Your task to perform on an android device: View the shopping cart on costco. Search for jbl flip 4 on costco, select the first entry, add it to the cart, then select checkout. Image 0: 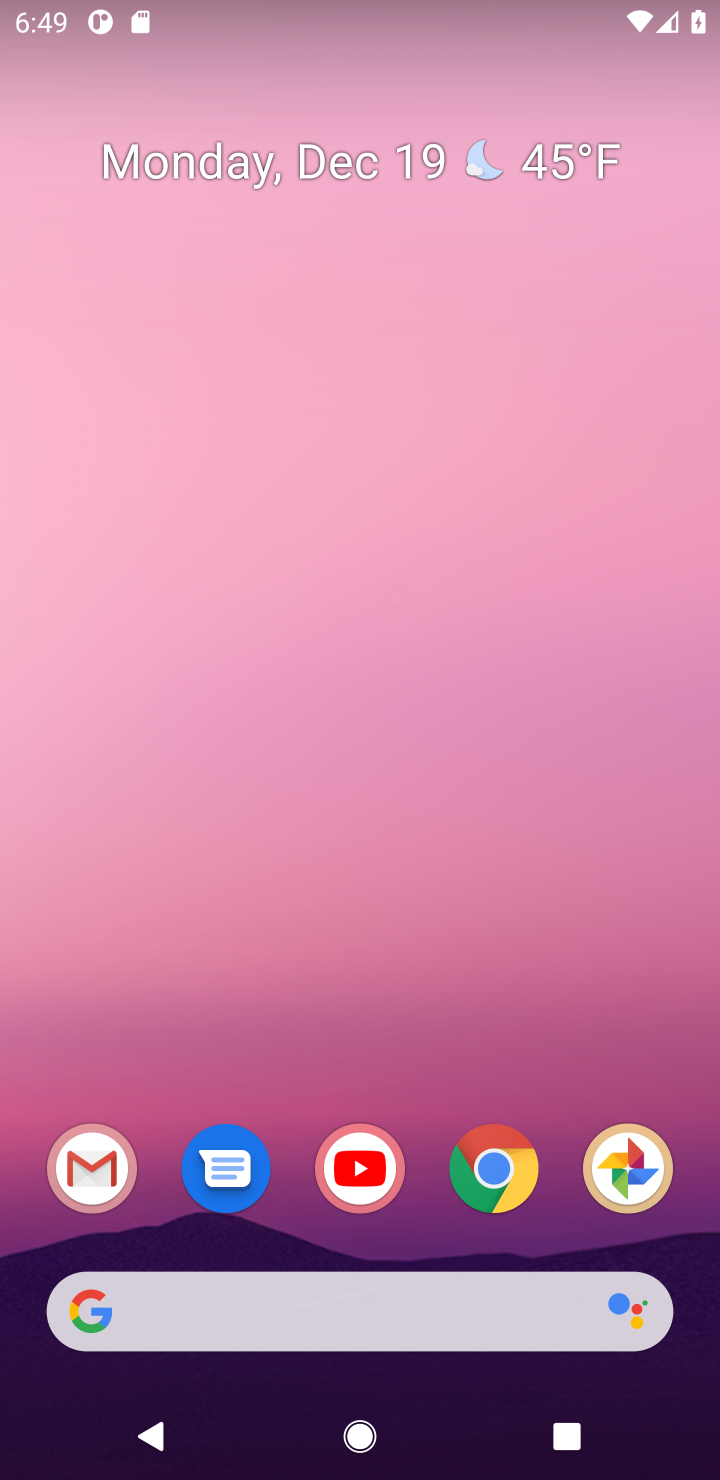
Step 0: click (495, 1175)
Your task to perform on an android device: View the shopping cart on costco. Search for jbl flip 4 on costco, select the first entry, add it to the cart, then select checkout. Image 1: 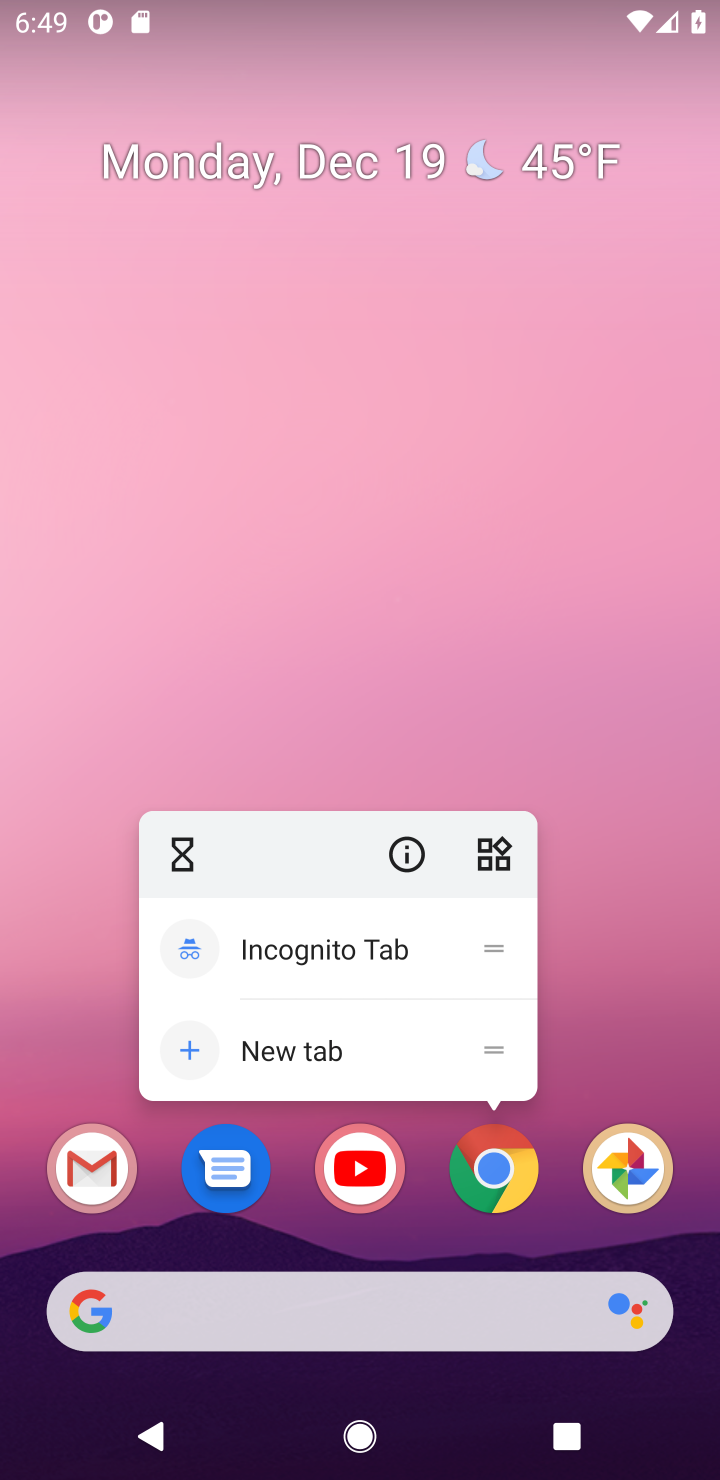
Step 1: click (495, 1175)
Your task to perform on an android device: View the shopping cart on costco. Search for jbl flip 4 on costco, select the first entry, add it to the cart, then select checkout. Image 2: 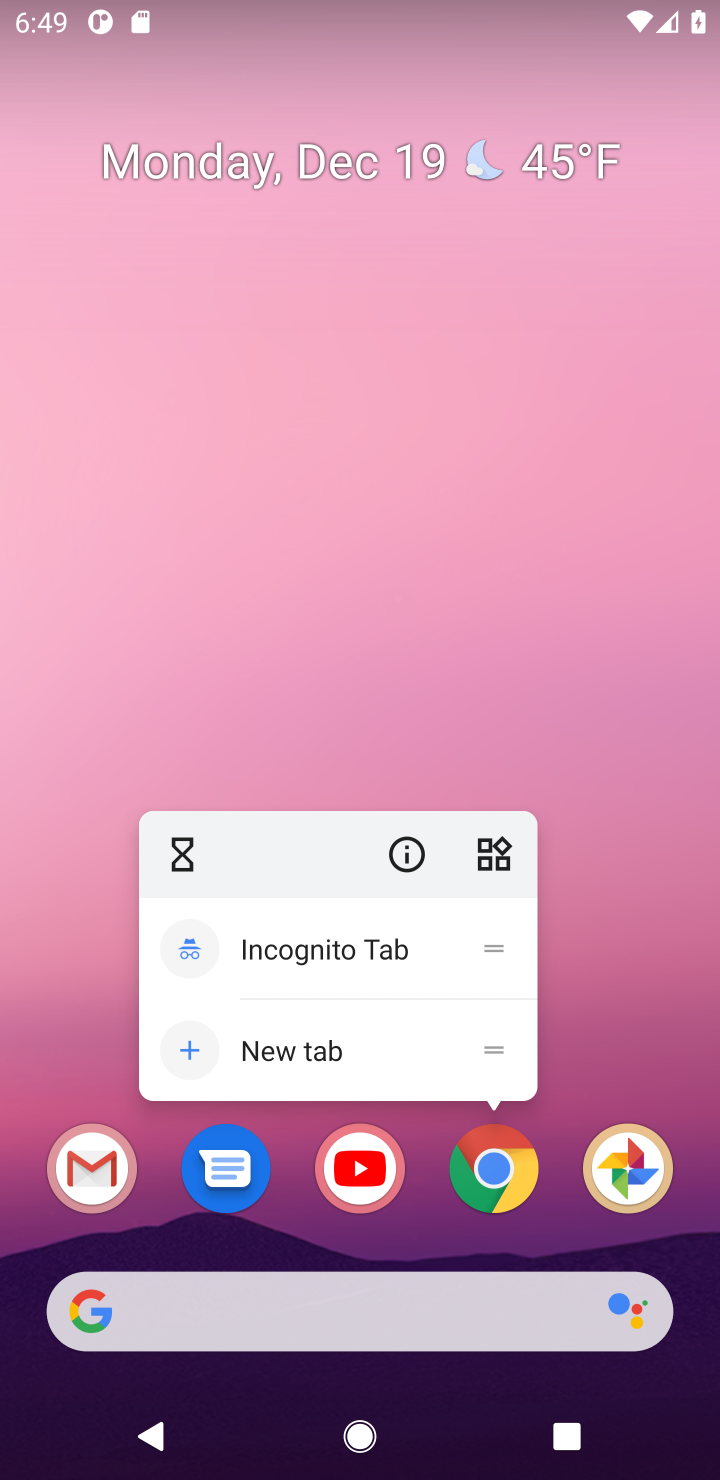
Step 2: click (495, 1175)
Your task to perform on an android device: View the shopping cart on costco. Search for jbl flip 4 on costco, select the first entry, add it to the cart, then select checkout. Image 3: 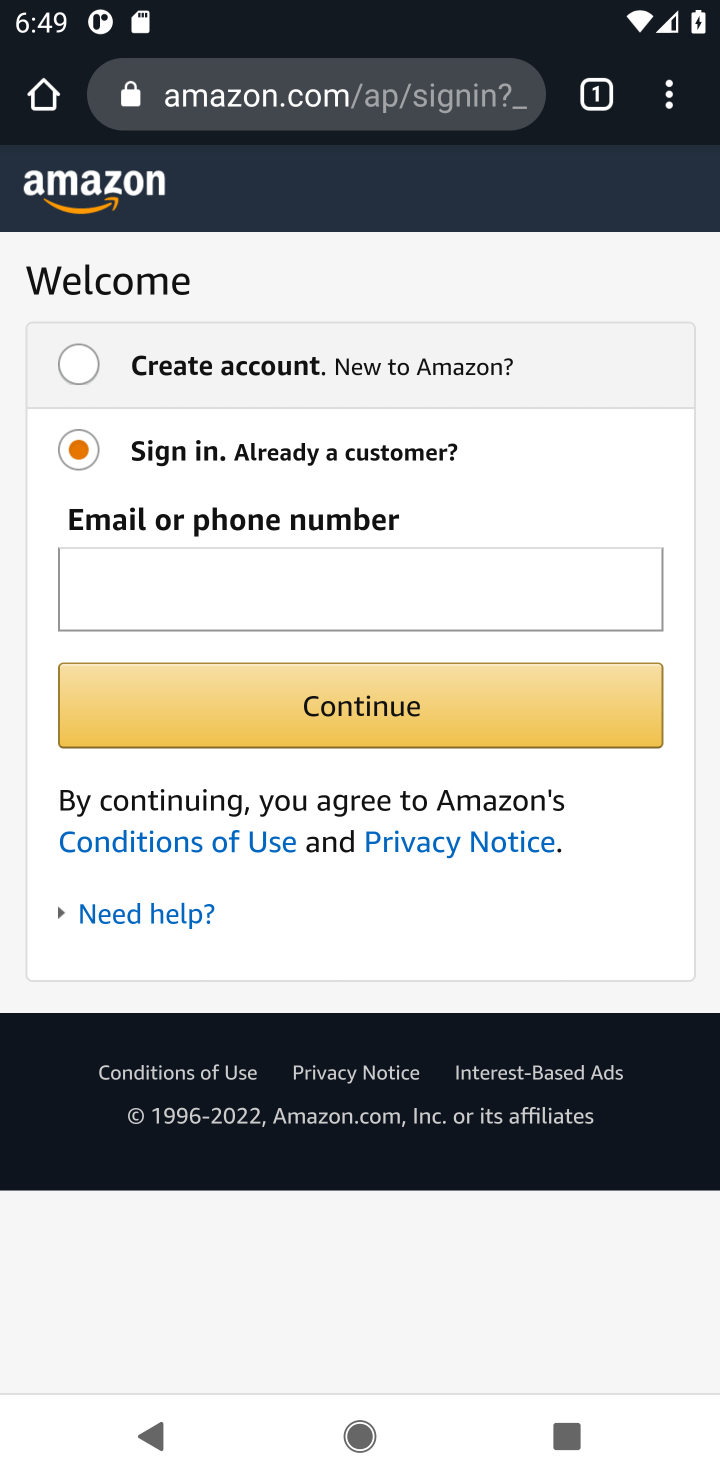
Step 3: click (279, 108)
Your task to perform on an android device: View the shopping cart on costco. Search for jbl flip 4 on costco, select the first entry, add it to the cart, then select checkout. Image 4: 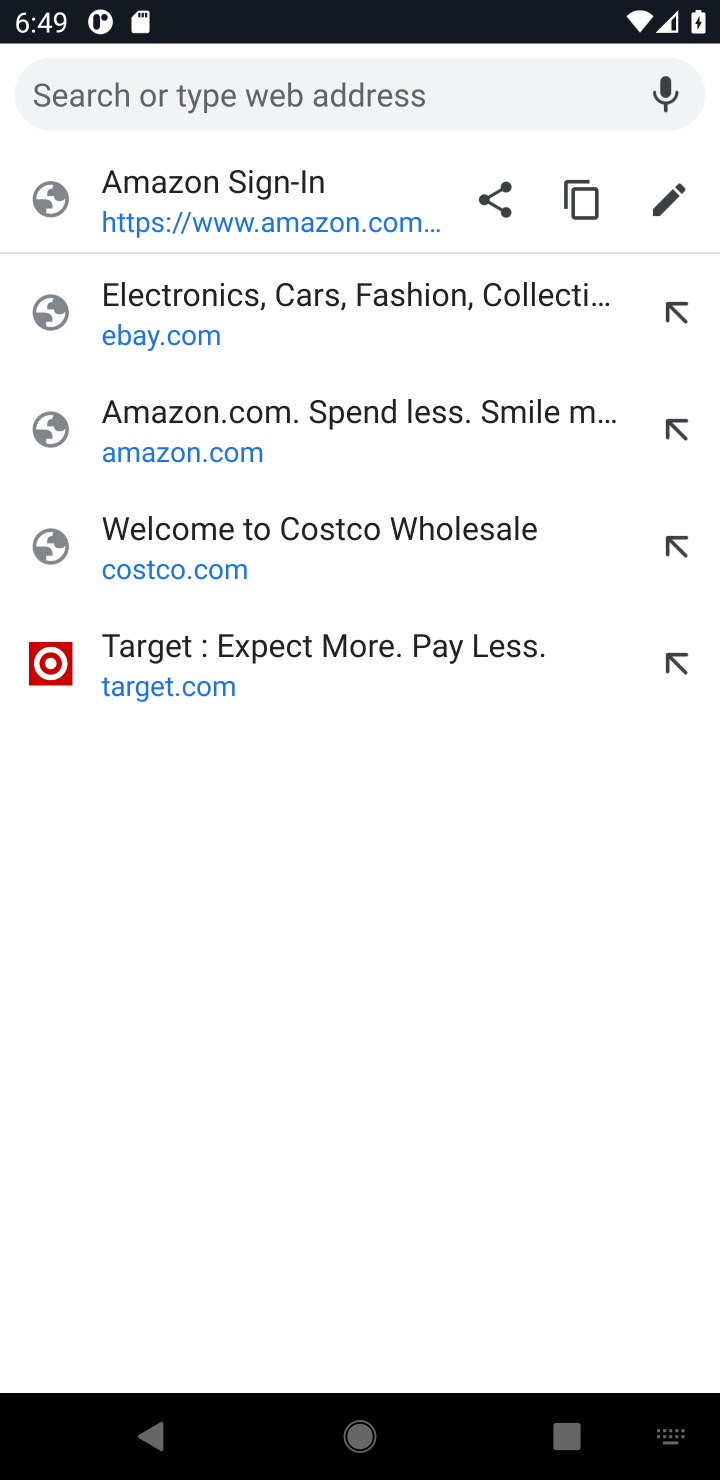
Step 4: click (139, 542)
Your task to perform on an android device: View the shopping cart on costco. Search for jbl flip 4 on costco, select the first entry, add it to the cart, then select checkout. Image 5: 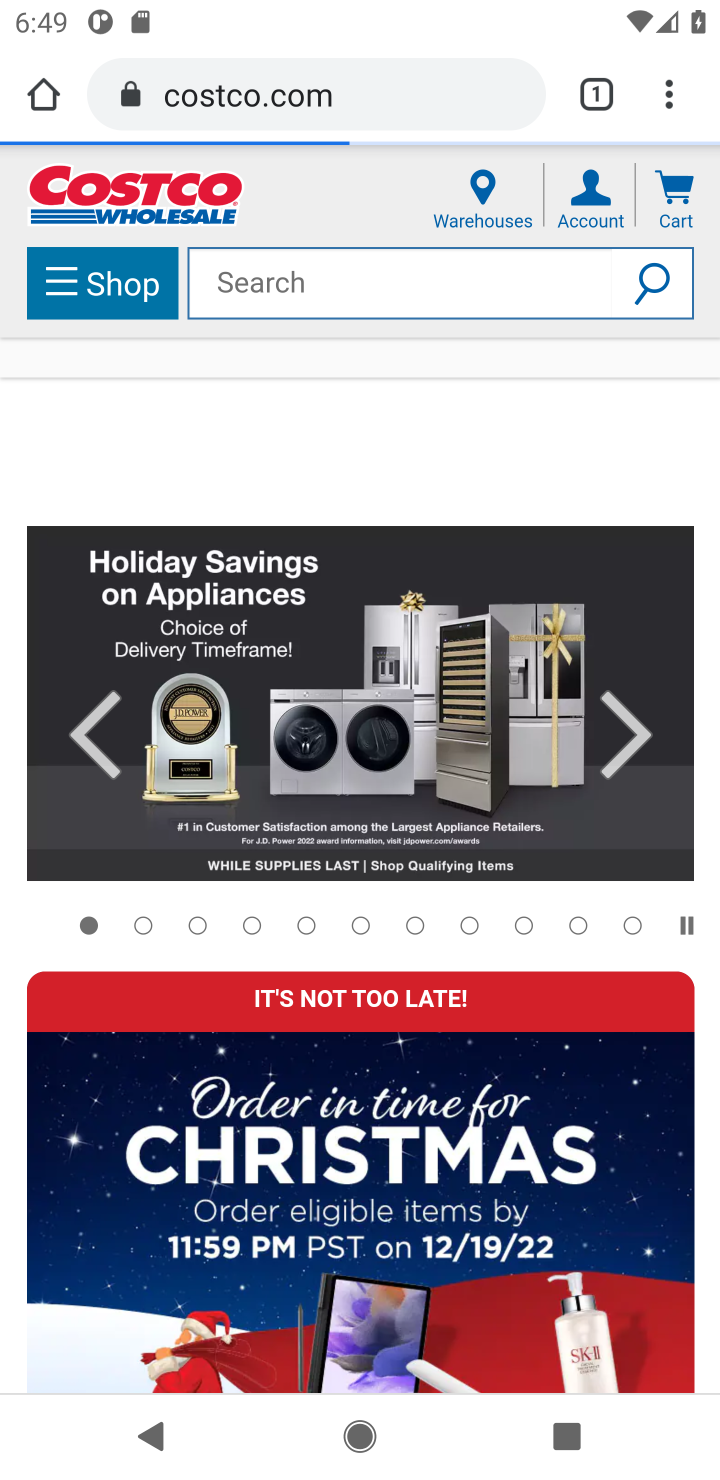
Step 5: click (682, 211)
Your task to perform on an android device: View the shopping cart on costco. Search for jbl flip 4 on costco, select the first entry, add it to the cart, then select checkout. Image 6: 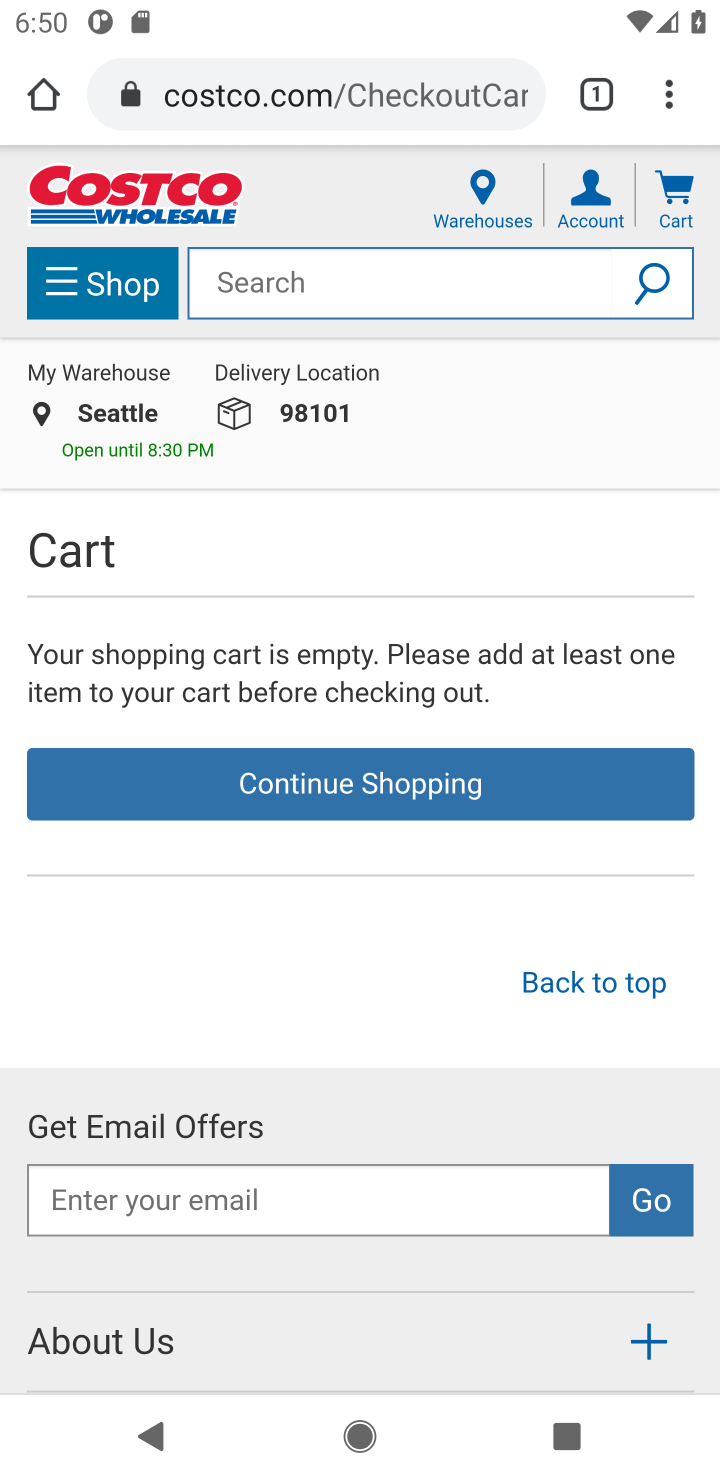
Step 6: click (266, 290)
Your task to perform on an android device: View the shopping cart on costco. Search for jbl flip 4 on costco, select the first entry, add it to the cart, then select checkout. Image 7: 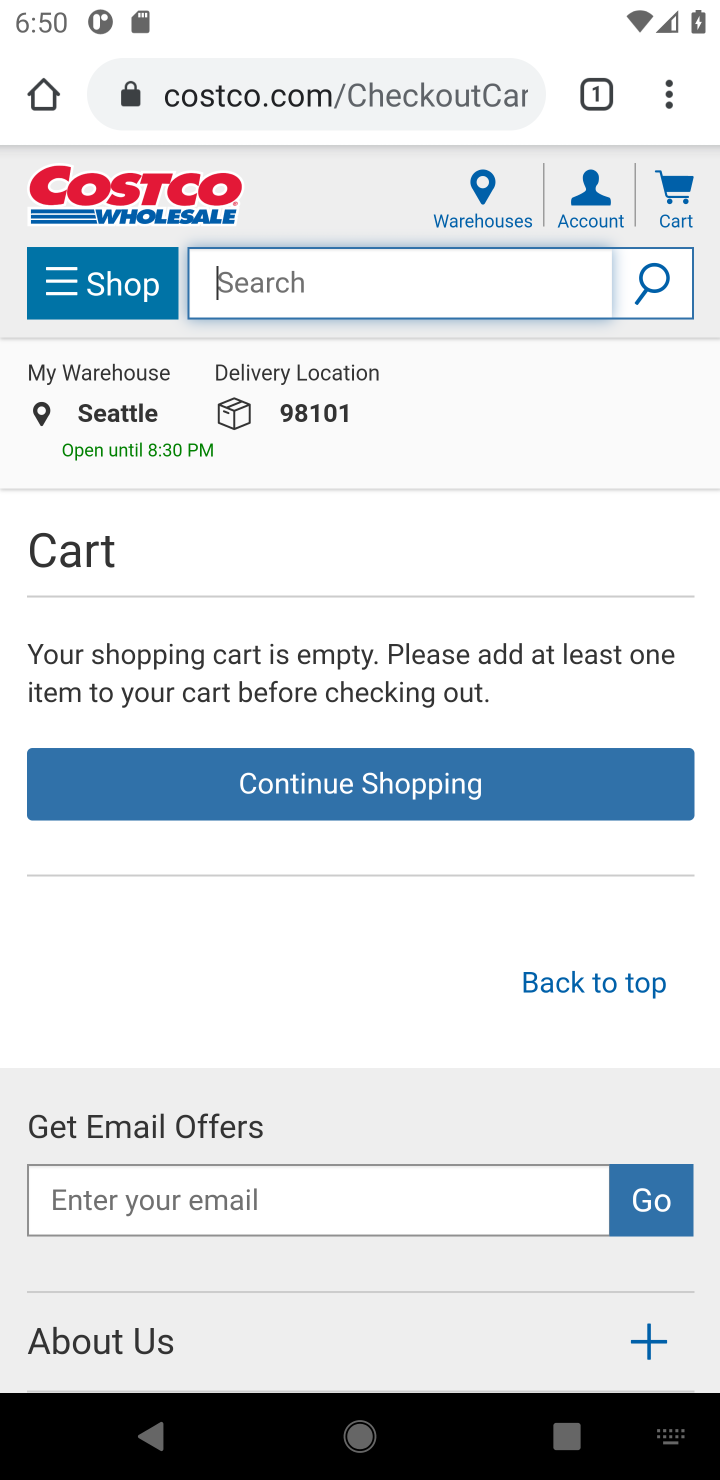
Step 7: type "jbl flip 4 "
Your task to perform on an android device: View the shopping cart on costco. Search for jbl flip 4 on costco, select the first entry, add it to the cart, then select checkout. Image 8: 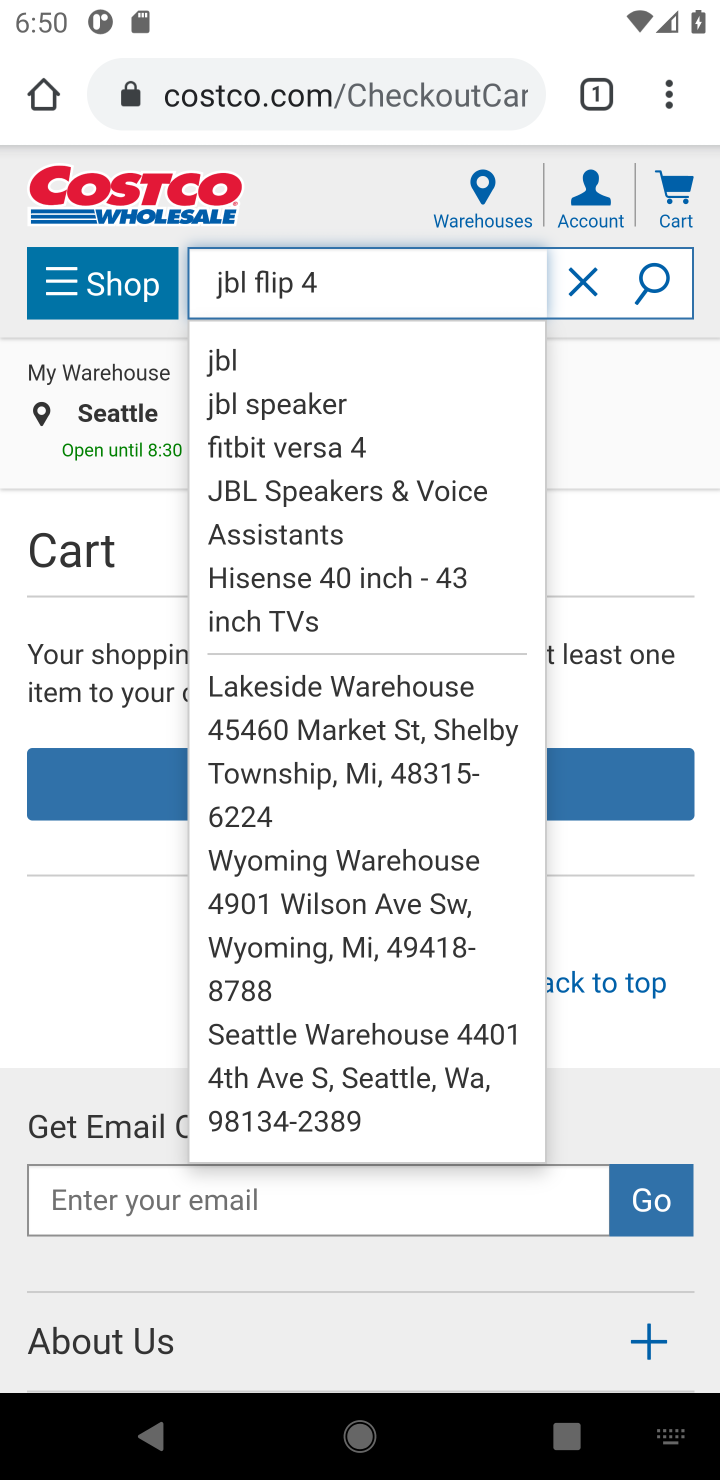
Step 8: click (643, 284)
Your task to perform on an android device: View the shopping cart on costco. Search for jbl flip 4 on costco, select the first entry, add it to the cart, then select checkout. Image 9: 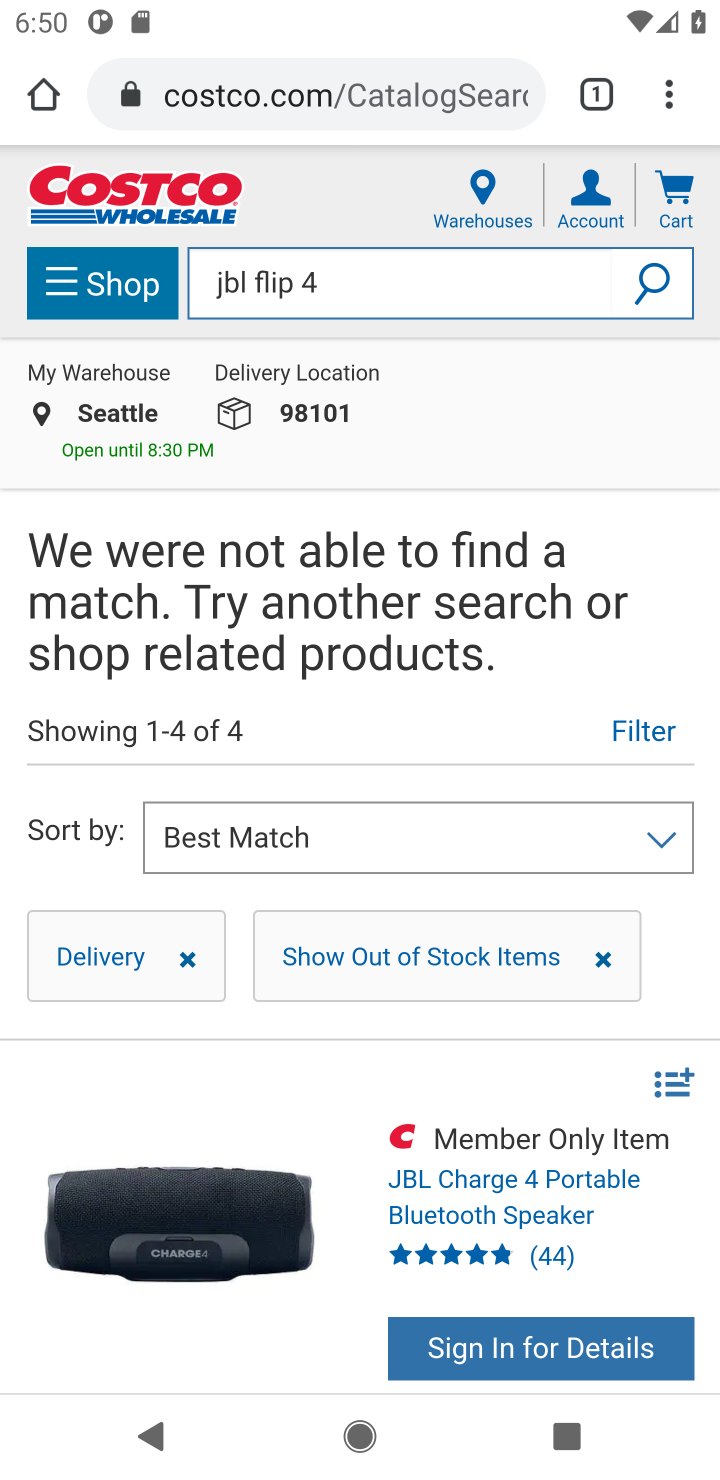
Step 9: task complete